Your task to perform on an android device: manage bookmarks in the chrome app Image 0: 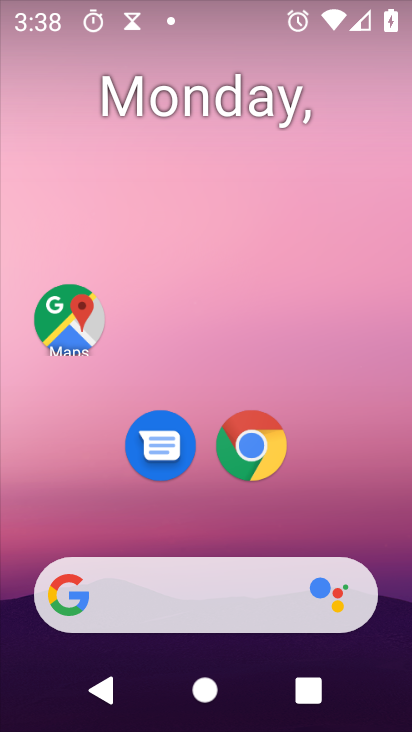
Step 0: click (255, 452)
Your task to perform on an android device: manage bookmarks in the chrome app Image 1: 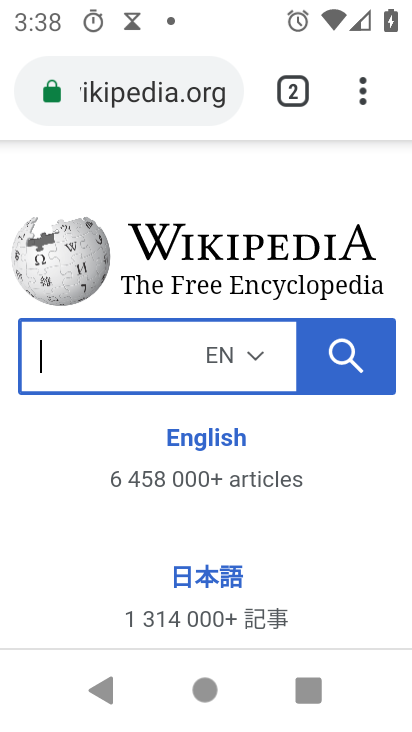
Step 1: drag from (362, 84) to (244, 321)
Your task to perform on an android device: manage bookmarks in the chrome app Image 2: 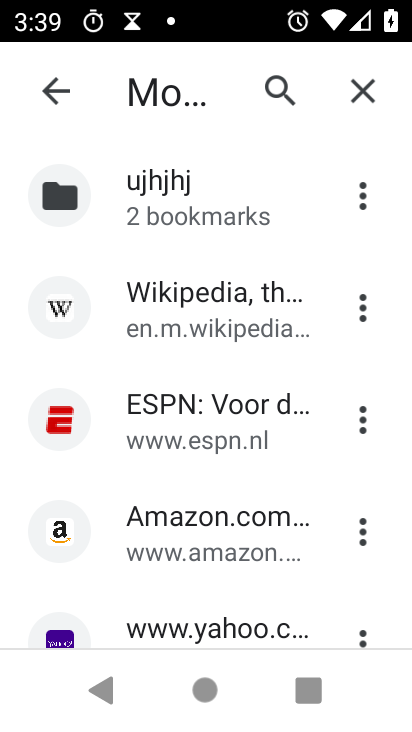
Step 2: click (361, 309)
Your task to perform on an android device: manage bookmarks in the chrome app Image 3: 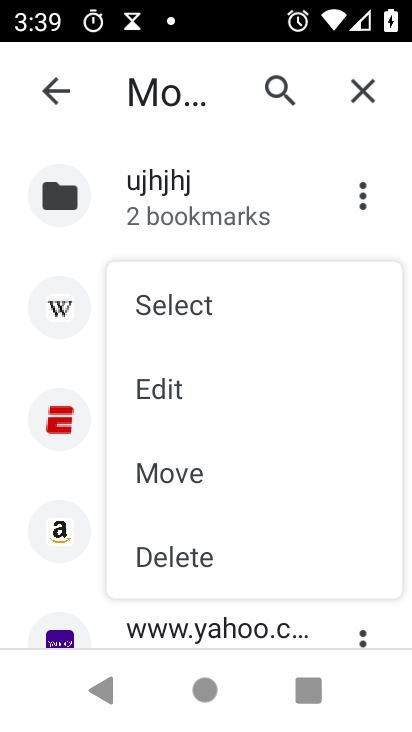
Step 3: click (195, 570)
Your task to perform on an android device: manage bookmarks in the chrome app Image 4: 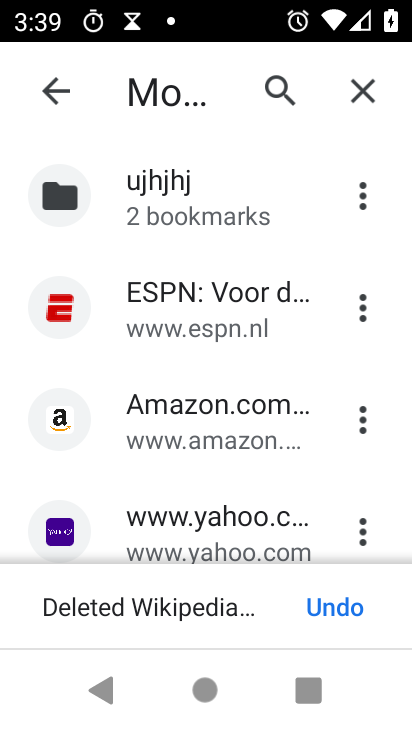
Step 4: task complete